Your task to perform on an android device: Open Maps and search for coffee Image 0: 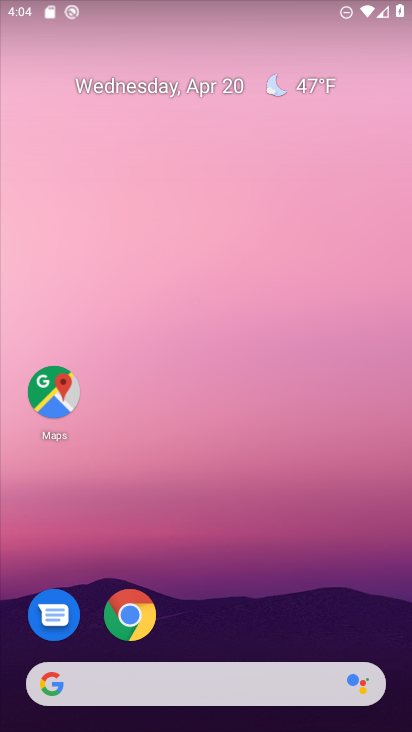
Step 0: click (44, 394)
Your task to perform on an android device: Open Maps and search for coffee Image 1: 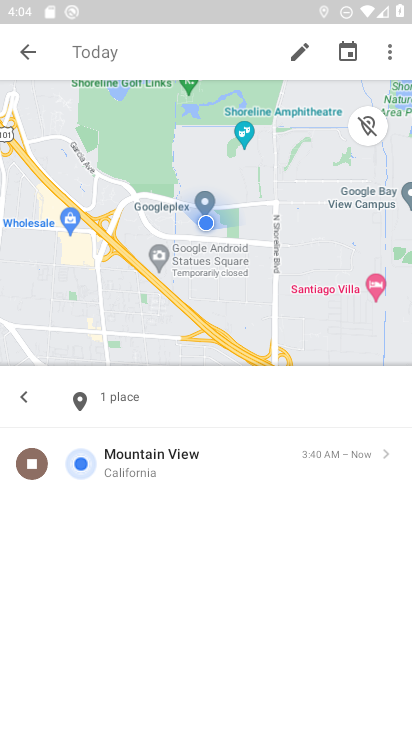
Step 1: click (30, 57)
Your task to perform on an android device: Open Maps and search for coffee Image 2: 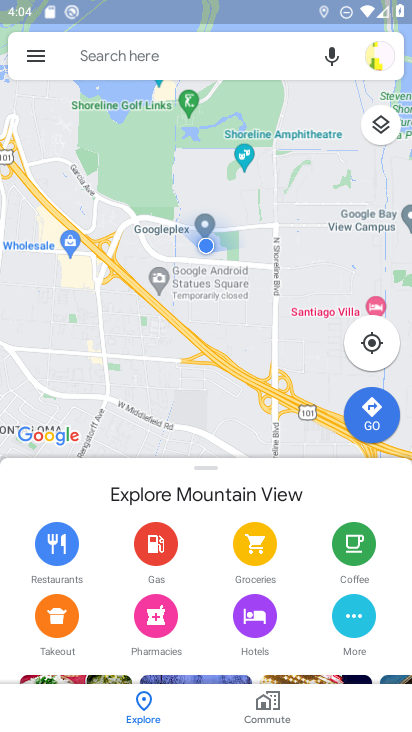
Step 2: click (131, 43)
Your task to perform on an android device: Open Maps and search for coffee Image 3: 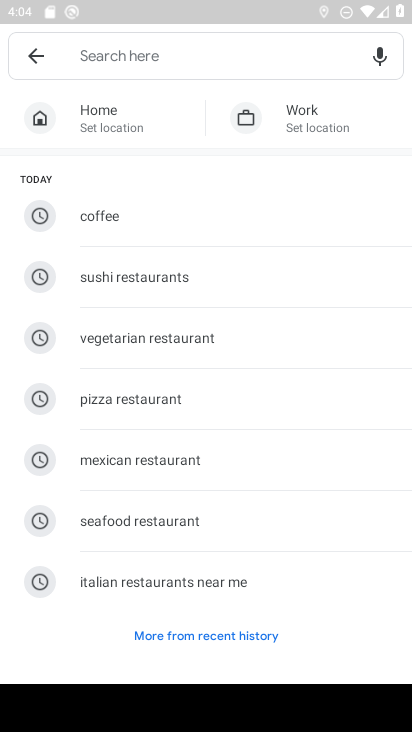
Step 3: click (118, 216)
Your task to perform on an android device: Open Maps and search for coffee Image 4: 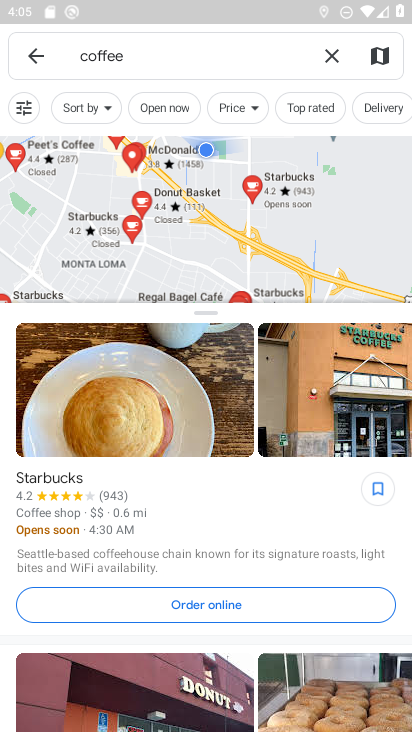
Step 4: task complete